Your task to perform on an android device: turn off smart reply in the gmail app Image 0: 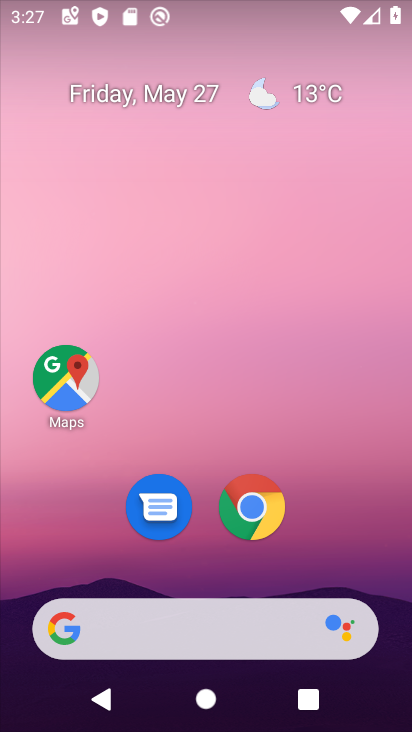
Step 0: drag from (70, 573) to (201, 108)
Your task to perform on an android device: turn off smart reply in the gmail app Image 1: 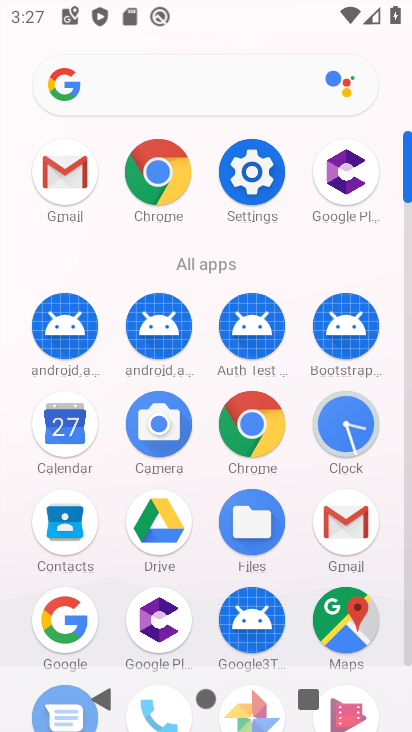
Step 1: drag from (169, 533) to (237, 298)
Your task to perform on an android device: turn off smart reply in the gmail app Image 2: 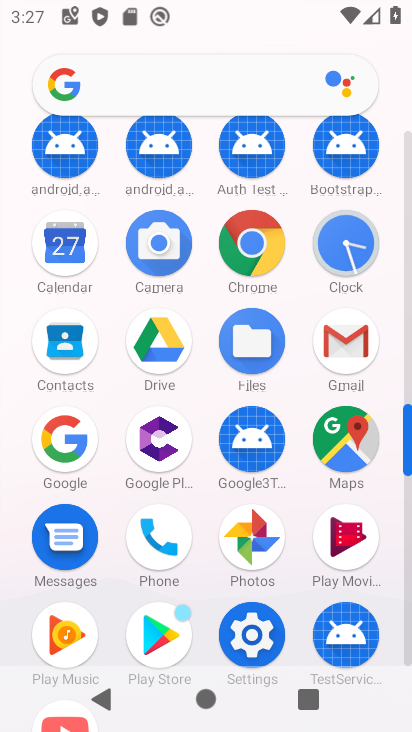
Step 2: click (335, 348)
Your task to perform on an android device: turn off smart reply in the gmail app Image 3: 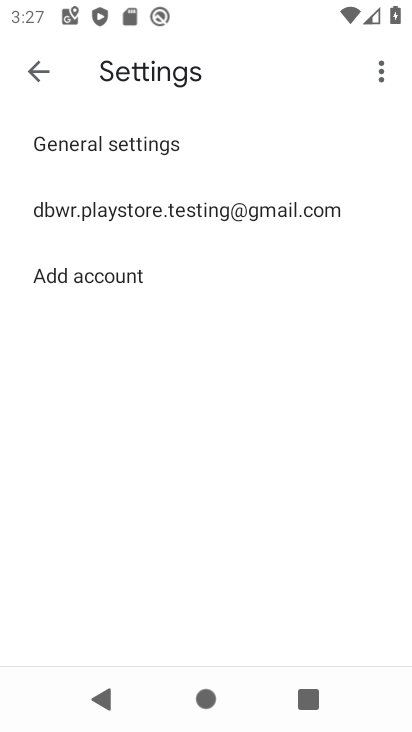
Step 3: click (175, 208)
Your task to perform on an android device: turn off smart reply in the gmail app Image 4: 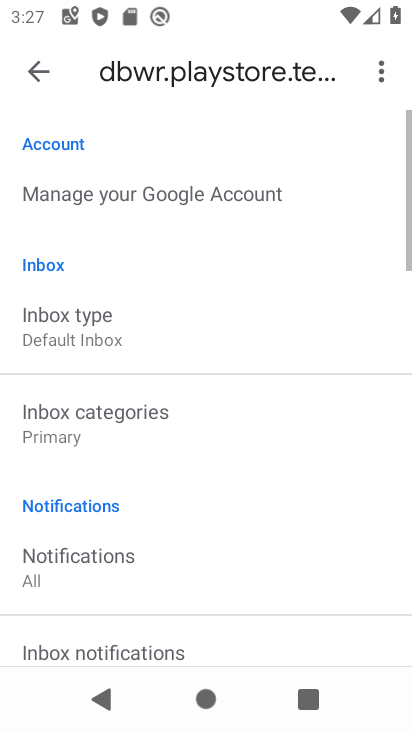
Step 4: drag from (160, 553) to (277, 182)
Your task to perform on an android device: turn off smart reply in the gmail app Image 5: 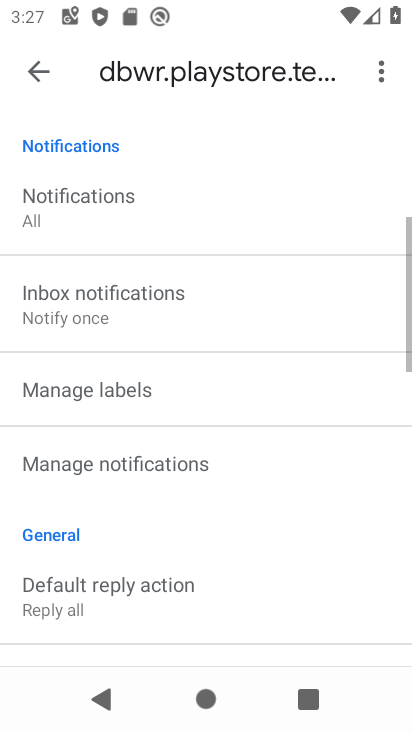
Step 5: drag from (211, 572) to (309, 203)
Your task to perform on an android device: turn off smart reply in the gmail app Image 6: 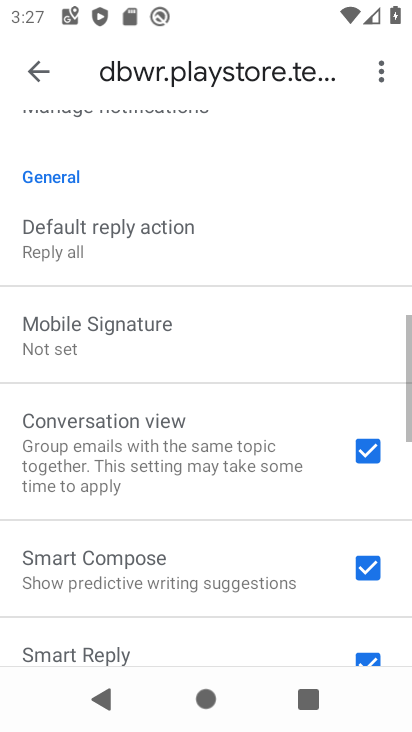
Step 6: drag from (171, 507) to (241, 230)
Your task to perform on an android device: turn off smart reply in the gmail app Image 7: 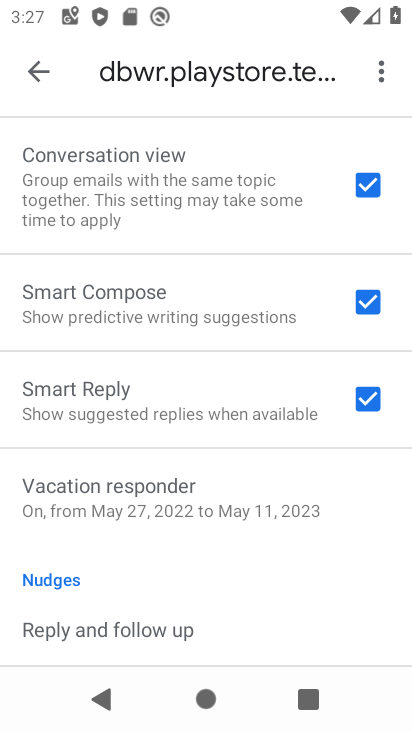
Step 7: click (377, 401)
Your task to perform on an android device: turn off smart reply in the gmail app Image 8: 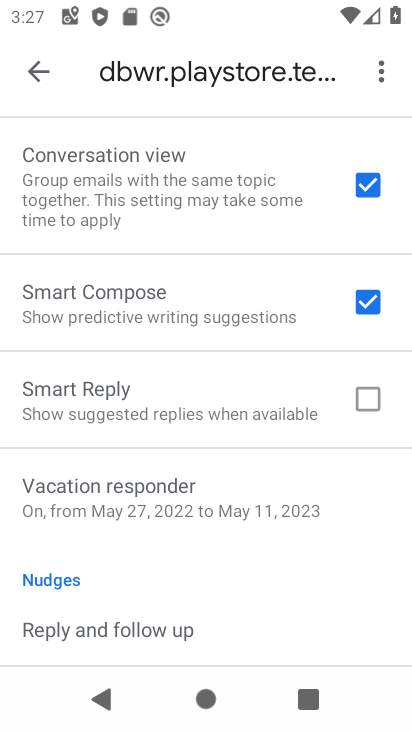
Step 8: task complete